Your task to perform on an android device: What's the weather going to be tomorrow? Image 0: 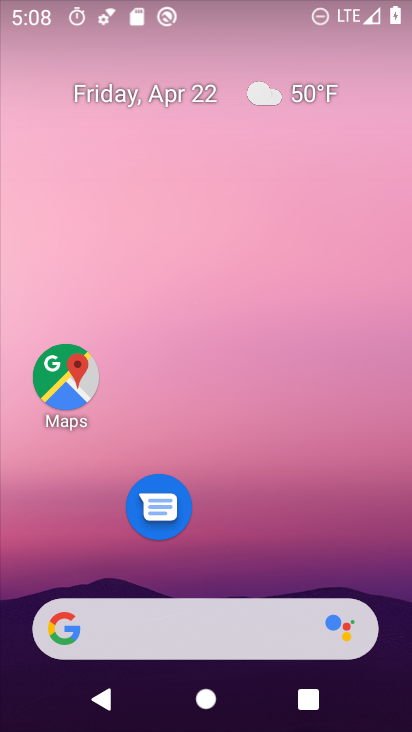
Step 0: press back button
Your task to perform on an android device: What's the weather going to be tomorrow? Image 1: 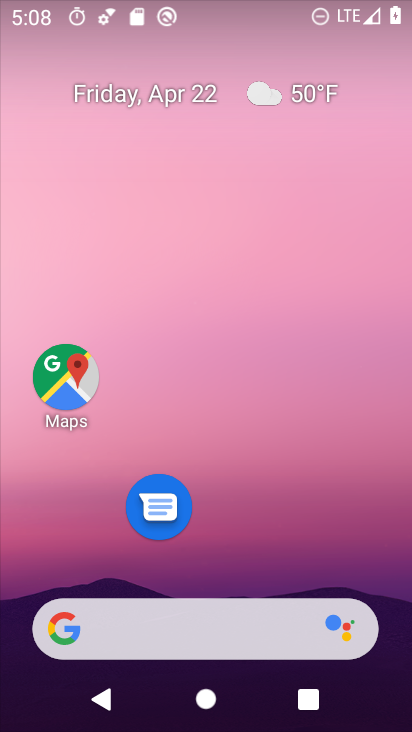
Step 1: drag from (286, 250) to (291, 24)
Your task to perform on an android device: What's the weather going to be tomorrow? Image 2: 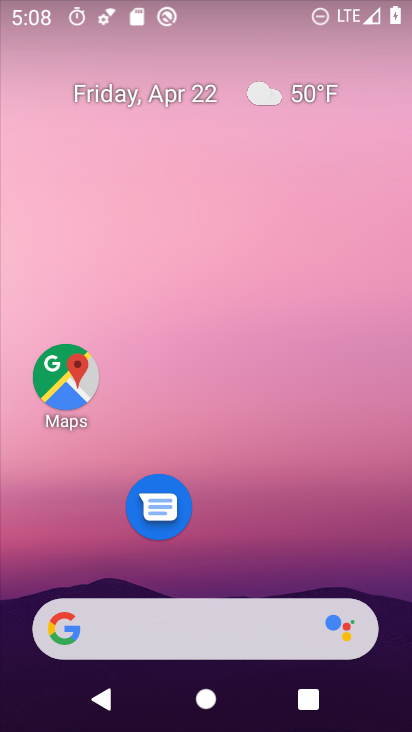
Step 2: drag from (212, 576) to (261, 3)
Your task to perform on an android device: What's the weather going to be tomorrow? Image 3: 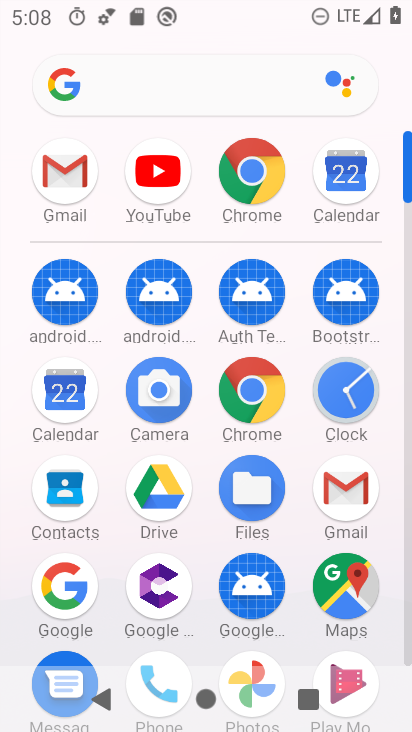
Step 3: click (254, 161)
Your task to perform on an android device: What's the weather going to be tomorrow? Image 4: 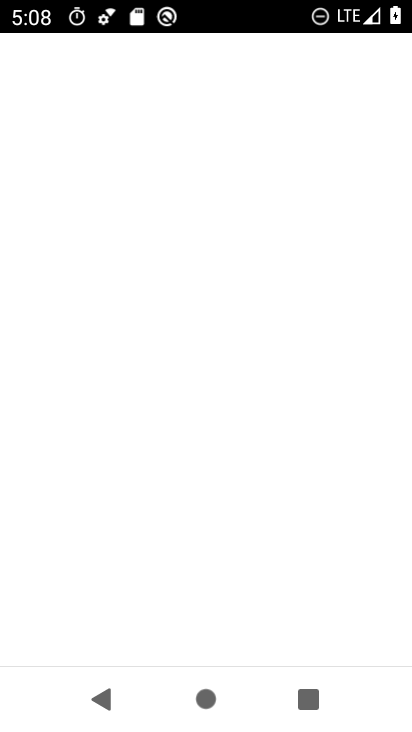
Step 4: press back button
Your task to perform on an android device: What's the weather going to be tomorrow? Image 5: 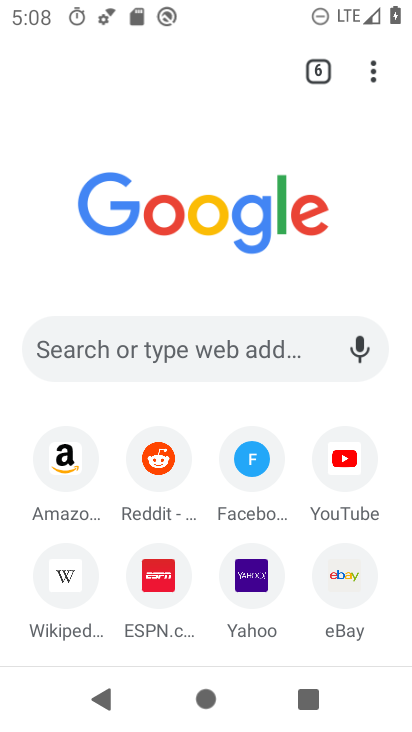
Step 5: press back button
Your task to perform on an android device: What's the weather going to be tomorrow? Image 6: 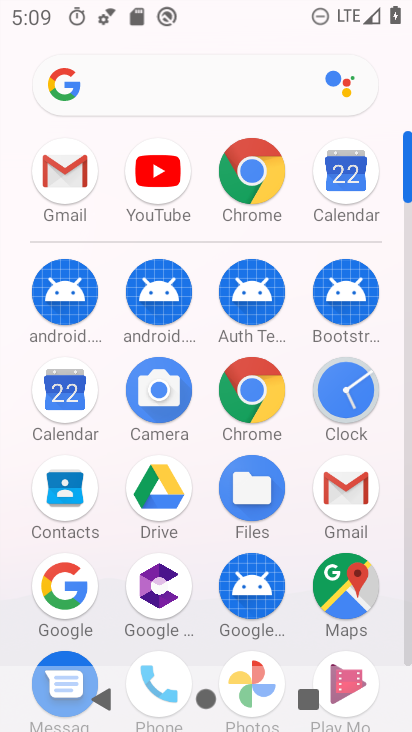
Step 6: press back button
Your task to perform on an android device: What's the weather going to be tomorrow? Image 7: 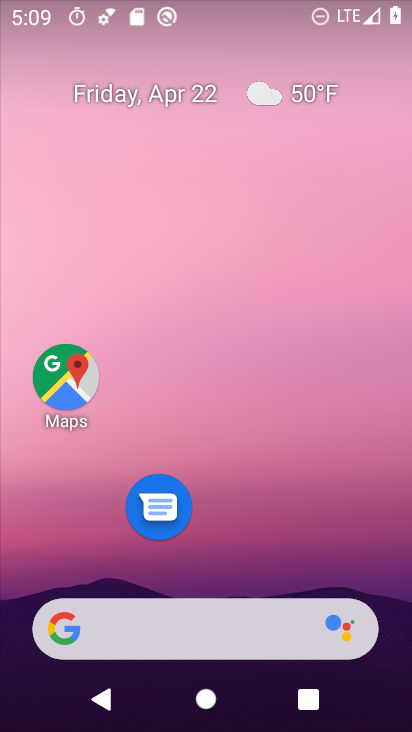
Step 7: click (257, 89)
Your task to perform on an android device: What's the weather going to be tomorrow? Image 8: 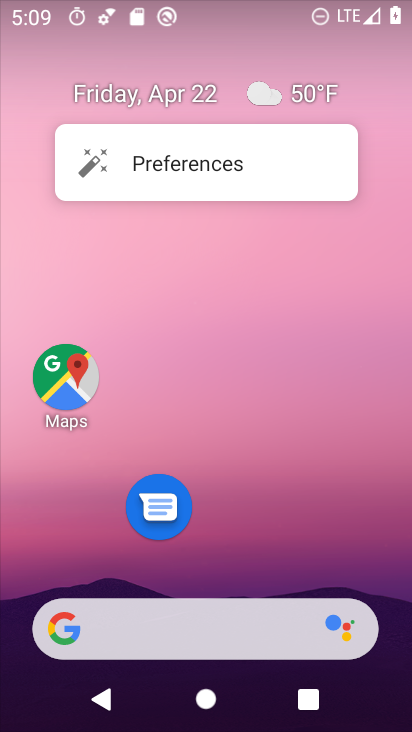
Step 8: click (261, 100)
Your task to perform on an android device: What's the weather going to be tomorrow? Image 9: 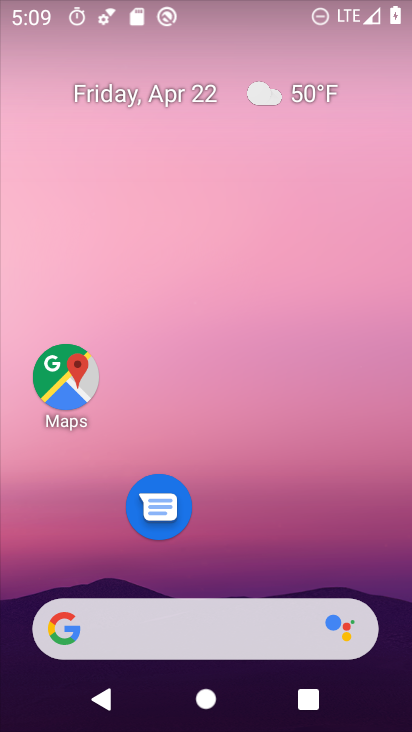
Step 9: click (298, 93)
Your task to perform on an android device: What's the weather going to be tomorrow? Image 10: 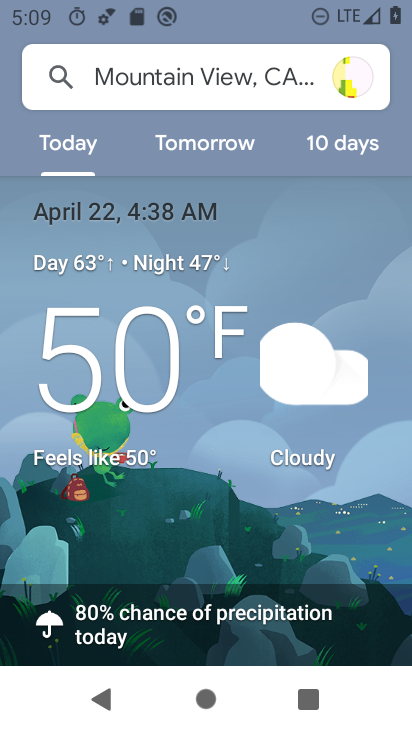
Step 10: click (196, 140)
Your task to perform on an android device: What's the weather going to be tomorrow? Image 11: 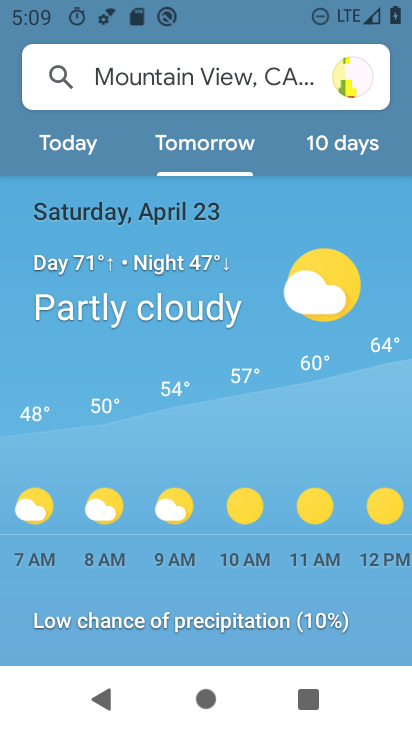
Step 11: task complete